Your task to perform on an android device: What's the weather? Image 0: 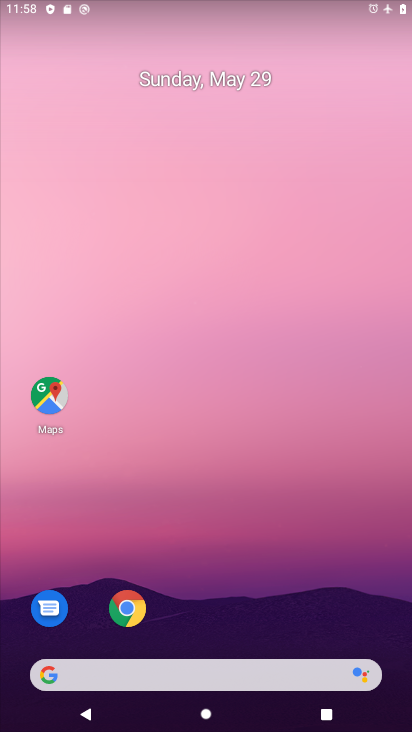
Step 0: click (182, 667)
Your task to perform on an android device: What's the weather? Image 1: 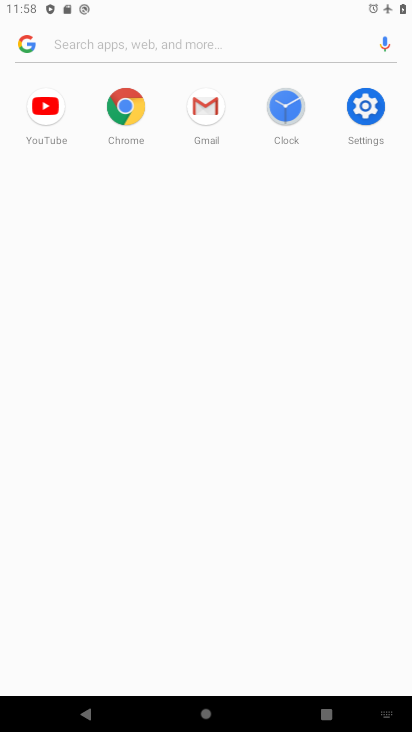
Step 1: click (169, 49)
Your task to perform on an android device: What's the weather? Image 2: 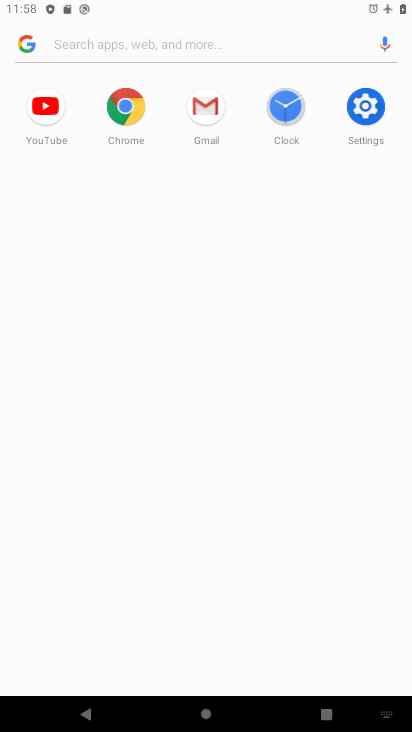
Step 2: task complete